Your task to perform on an android device: turn on priority inbox in the gmail app Image 0: 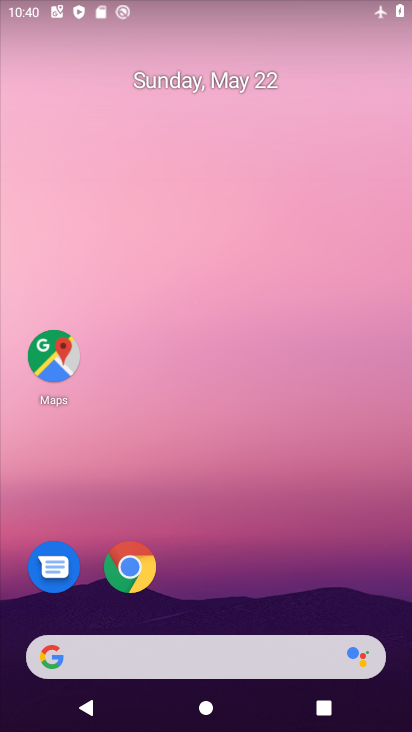
Step 0: drag from (306, 594) to (252, 160)
Your task to perform on an android device: turn on priority inbox in the gmail app Image 1: 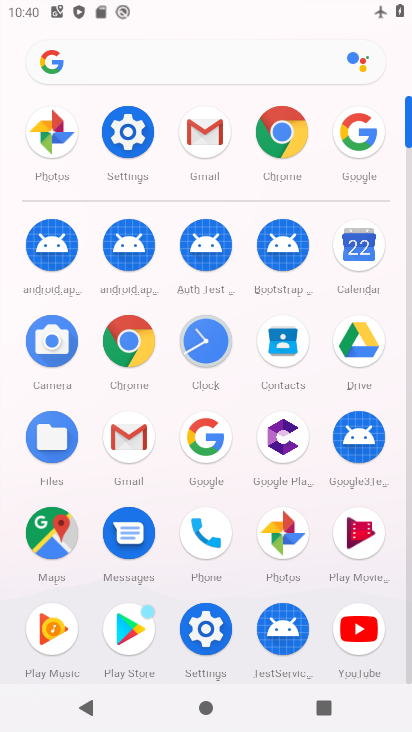
Step 1: click (138, 445)
Your task to perform on an android device: turn on priority inbox in the gmail app Image 2: 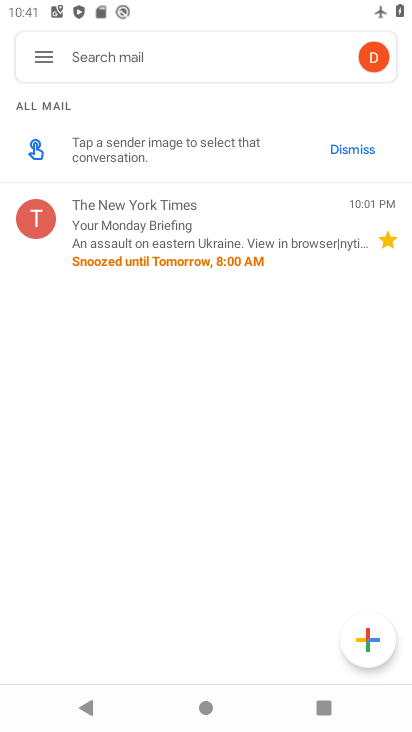
Step 2: click (59, 52)
Your task to perform on an android device: turn on priority inbox in the gmail app Image 3: 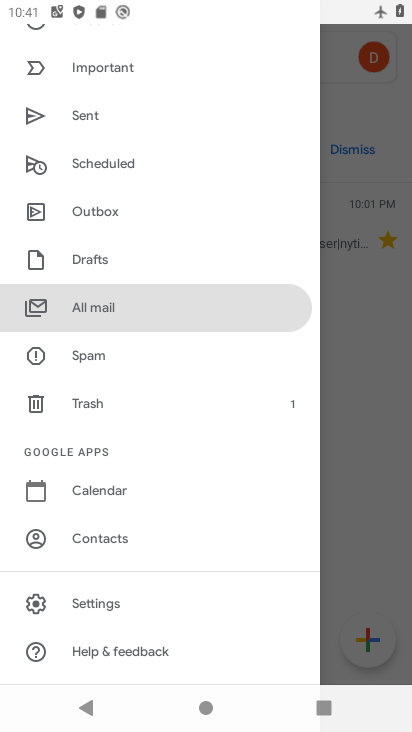
Step 3: click (125, 604)
Your task to perform on an android device: turn on priority inbox in the gmail app Image 4: 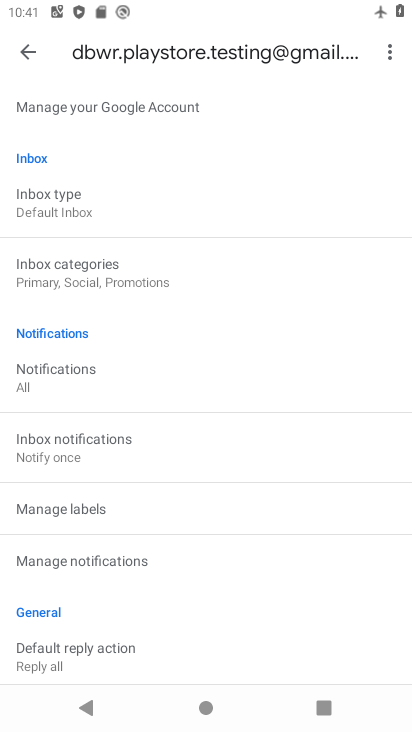
Step 4: drag from (114, 613) to (239, 267)
Your task to perform on an android device: turn on priority inbox in the gmail app Image 5: 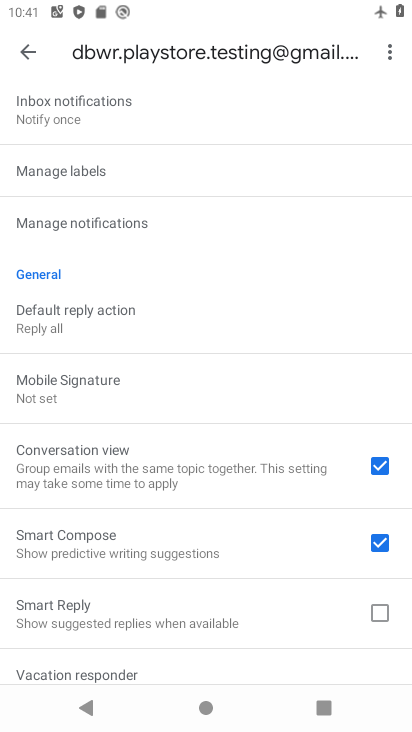
Step 5: drag from (270, 663) to (278, 327)
Your task to perform on an android device: turn on priority inbox in the gmail app Image 6: 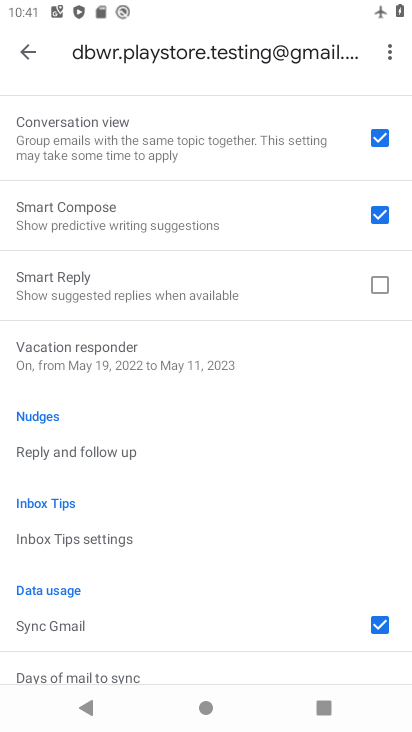
Step 6: drag from (193, 192) to (208, 568)
Your task to perform on an android device: turn on priority inbox in the gmail app Image 7: 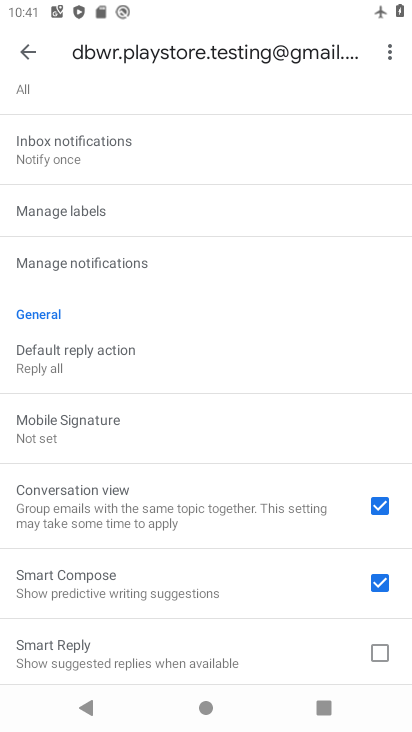
Step 7: drag from (204, 228) to (188, 600)
Your task to perform on an android device: turn on priority inbox in the gmail app Image 8: 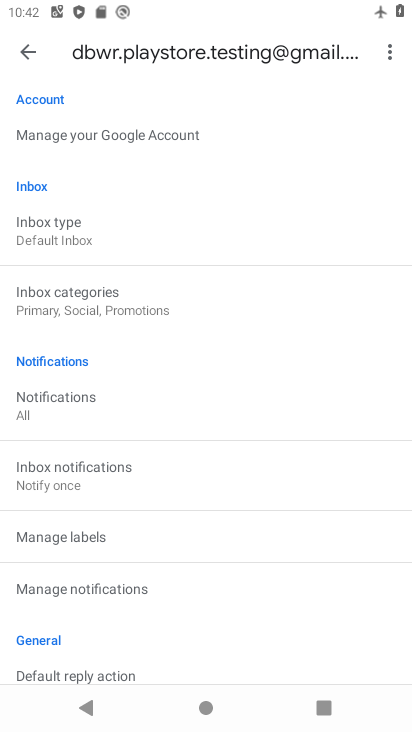
Step 8: click (102, 319)
Your task to perform on an android device: turn on priority inbox in the gmail app Image 9: 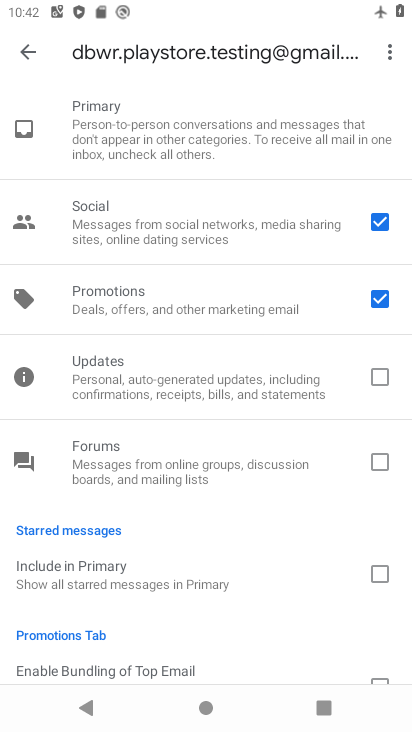
Step 9: drag from (169, 602) to (169, 239)
Your task to perform on an android device: turn on priority inbox in the gmail app Image 10: 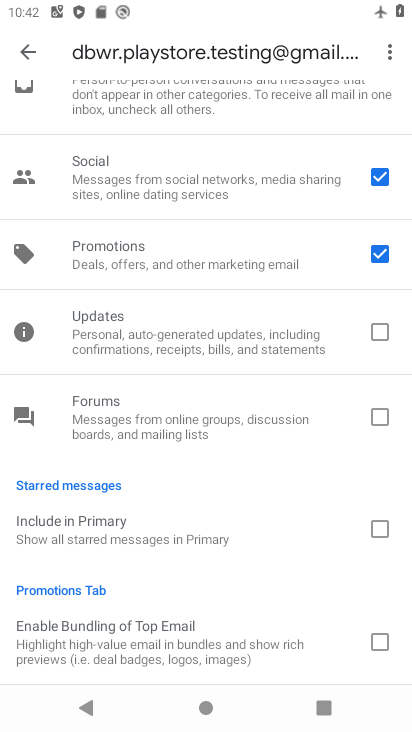
Step 10: click (387, 533)
Your task to perform on an android device: turn on priority inbox in the gmail app Image 11: 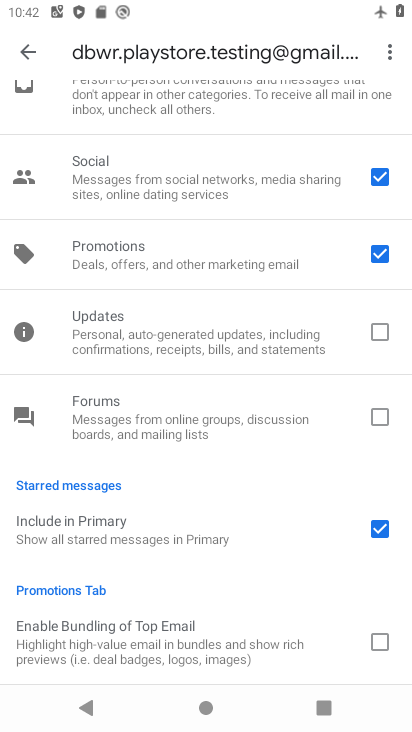
Step 11: click (22, 55)
Your task to perform on an android device: turn on priority inbox in the gmail app Image 12: 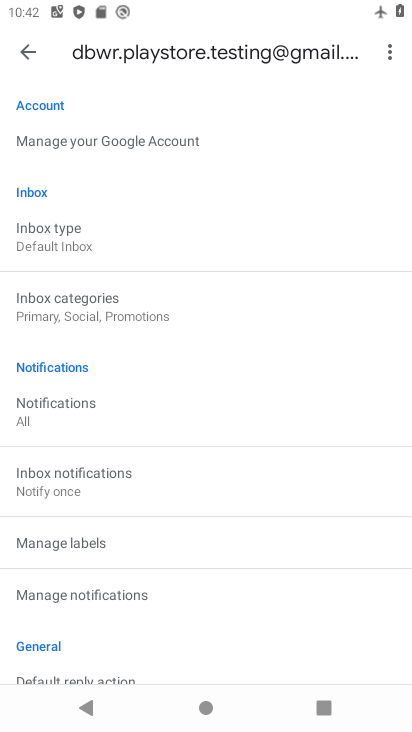
Step 12: click (27, 50)
Your task to perform on an android device: turn on priority inbox in the gmail app Image 13: 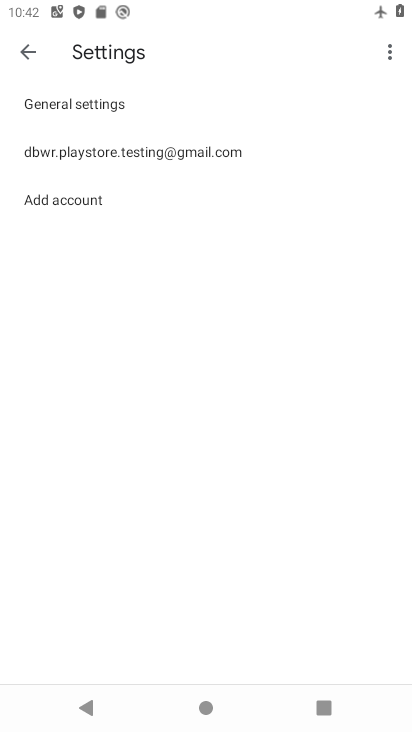
Step 13: click (31, 48)
Your task to perform on an android device: turn on priority inbox in the gmail app Image 14: 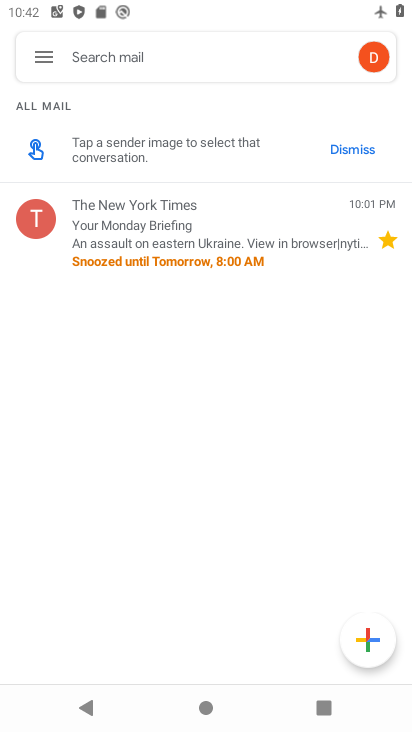
Step 14: click (32, 49)
Your task to perform on an android device: turn on priority inbox in the gmail app Image 15: 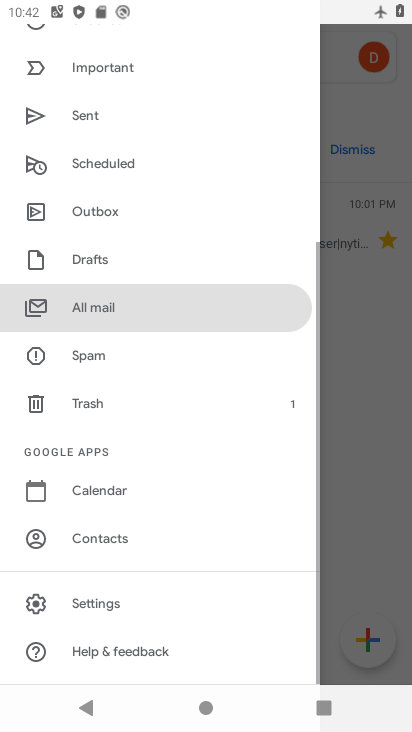
Step 15: drag from (173, 112) to (227, 617)
Your task to perform on an android device: turn on priority inbox in the gmail app Image 16: 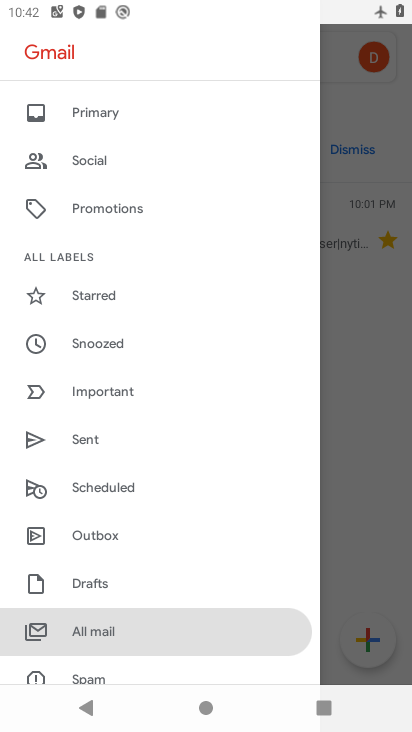
Step 16: click (163, 108)
Your task to perform on an android device: turn on priority inbox in the gmail app Image 17: 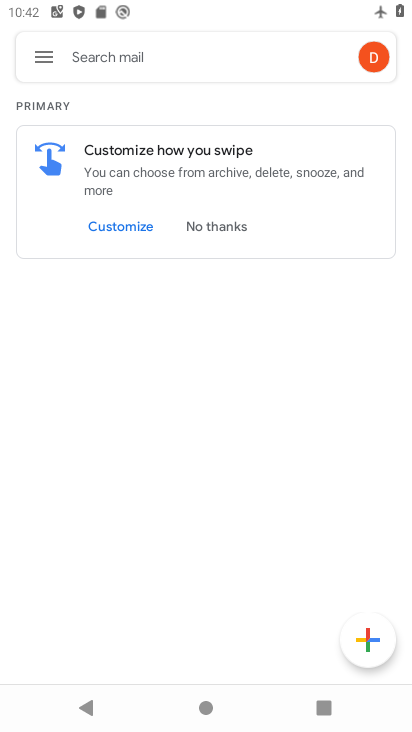
Step 17: task complete